Your task to perform on an android device: add a label to a message in the gmail app Image 0: 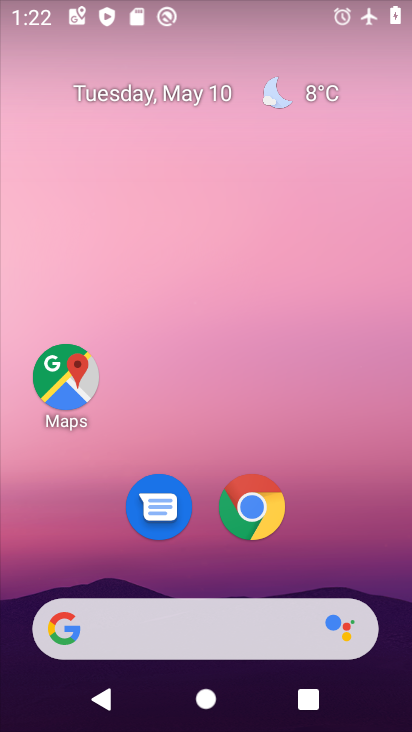
Step 0: drag from (221, 724) to (213, 123)
Your task to perform on an android device: add a label to a message in the gmail app Image 1: 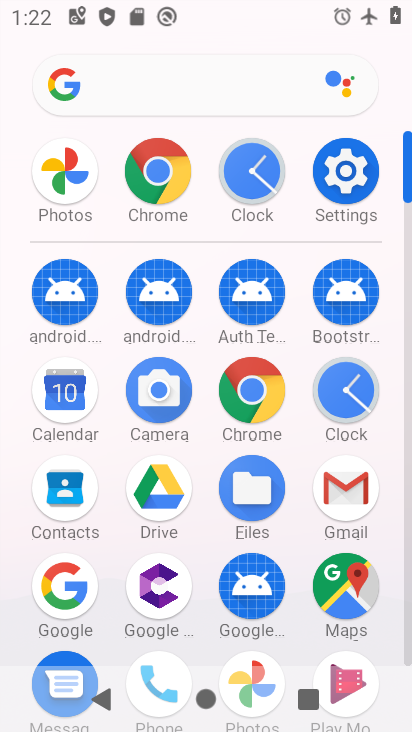
Step 1: click (354, 499)
Your task to perform on an android device: add a label to a message in the gmail app Image 2: 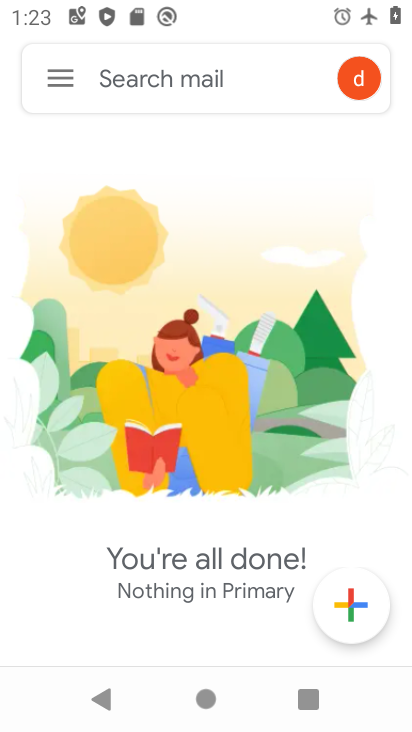
Step 2: task complete